Your task to perform on an android device: Open calendar and show me the second week of next month Image 0: 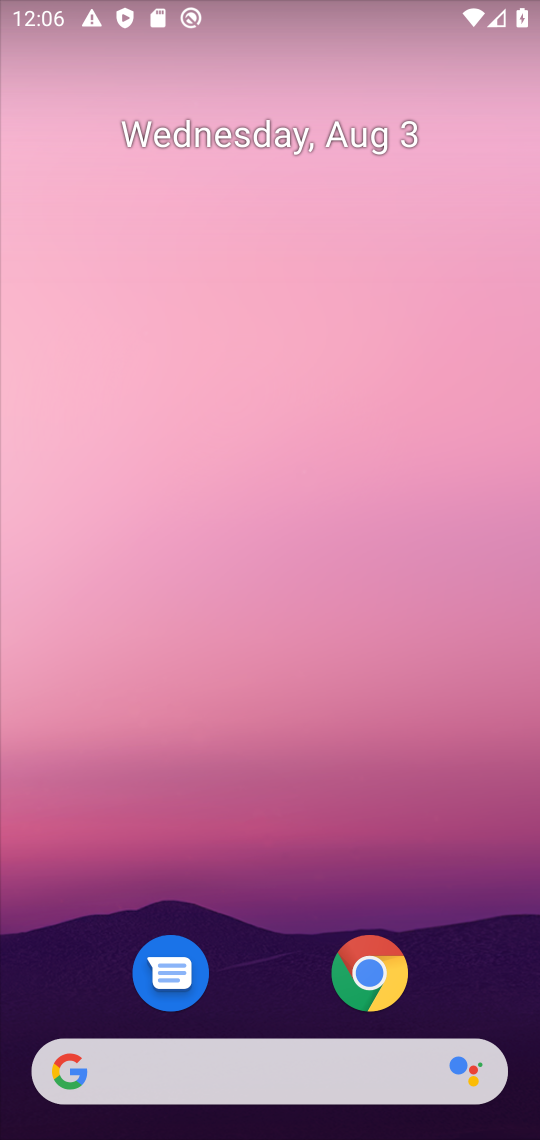
Step 0: drag from (275, 973) to (243, 131)
Your task to perform on an android device: Open calendar and show me the second week of next month Image 1: 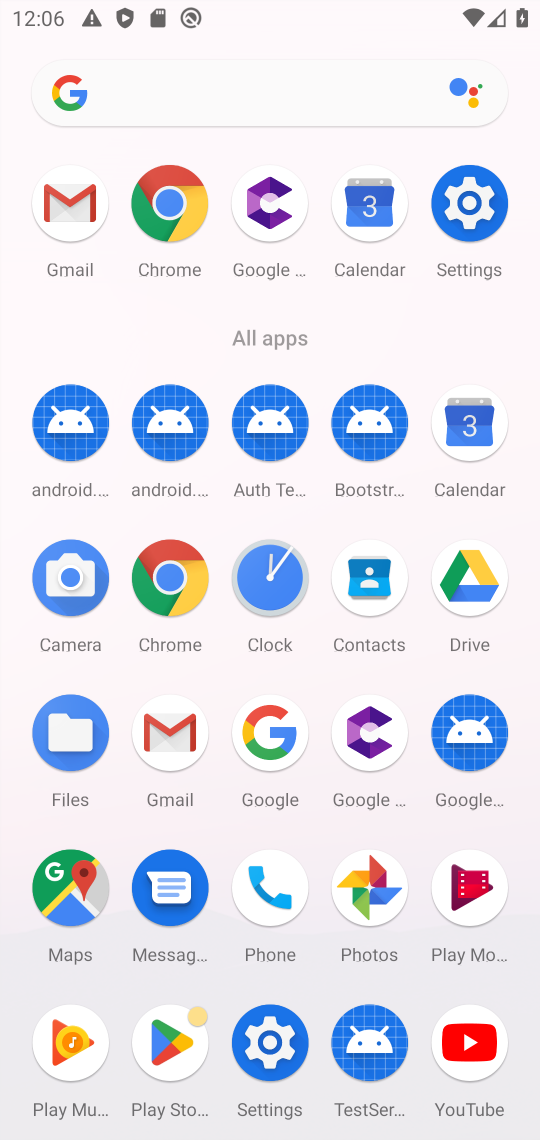
Step 1: click (462, 417)
Your task to perform on an android device: Open calendar and show me the second week of next month Image 2: 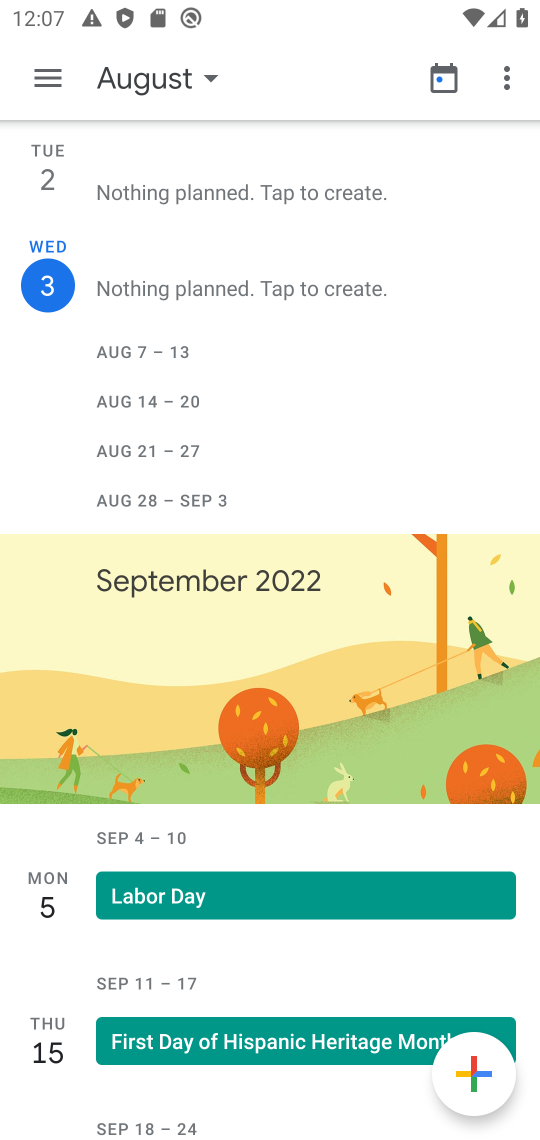
Step 2: click (50, 84)
Your task to perform on an android device: Open calendar and show me the second week of next month Image 3: 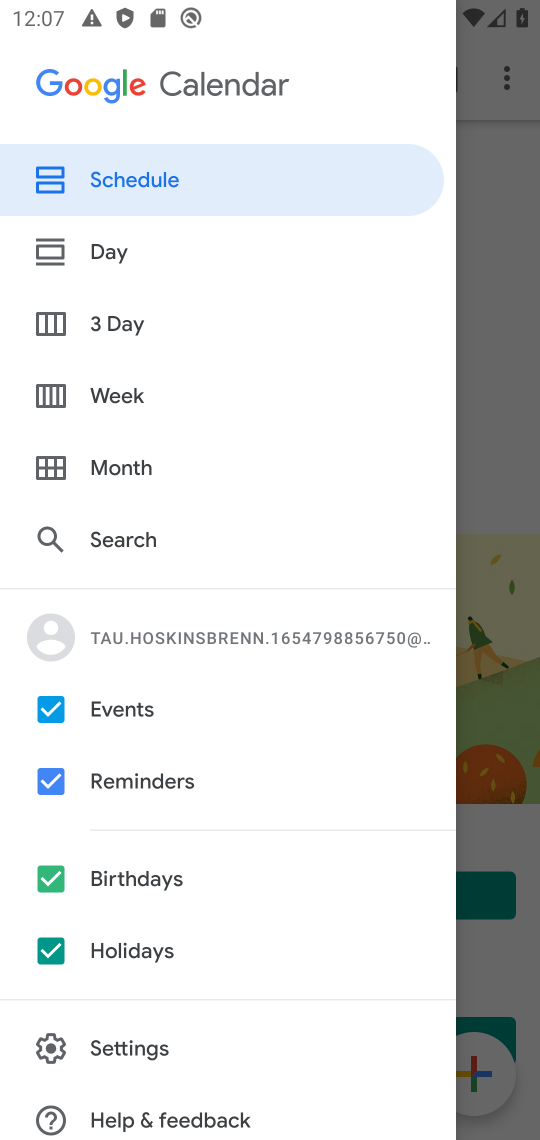
Step 3: click (142, 462)
Your task to perform on an android device: Open calendar and show me the second week of next month Image 4: 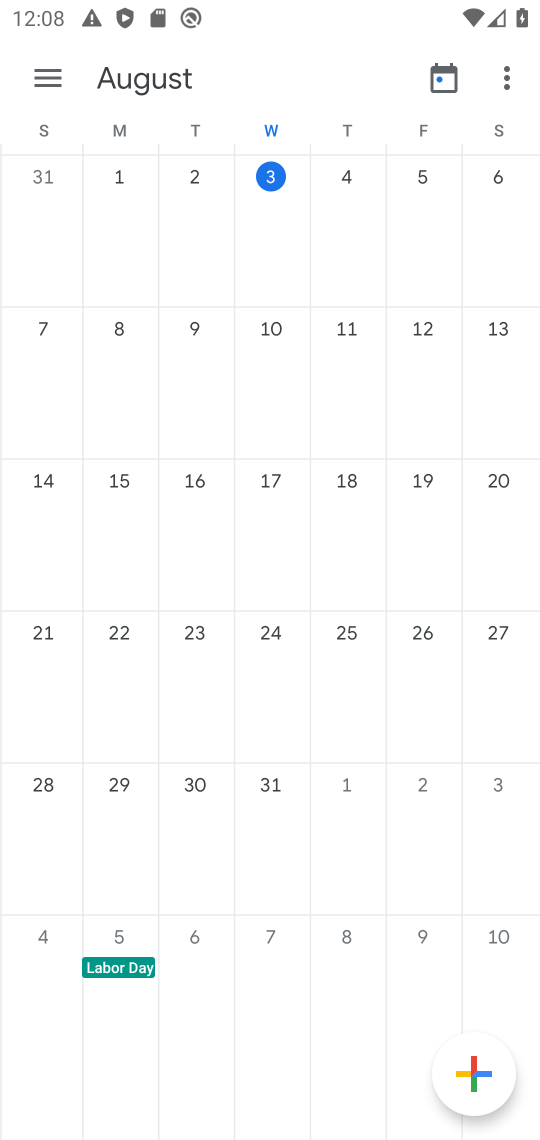
Step 4: task complete